Your task to perform on an android device: Show me productivity apps on the Play Store Image 0: 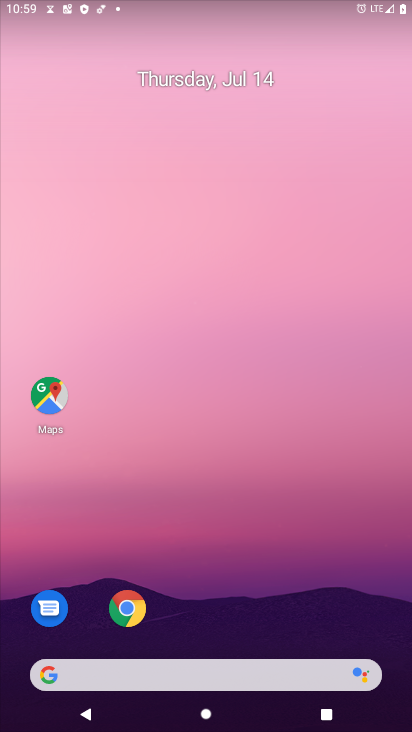
Step 0: drag from (229, 648) to (223, 160)
Your task to perform on an android device: Show me productivity apps on the Play Store Image 1: 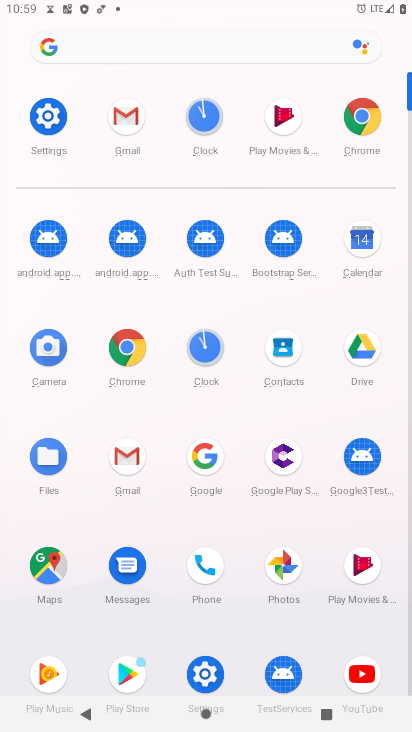
Step 1: click (133, 675)
Your task to perform on an android device: Show me productivity apps on the Play Store Image 2: 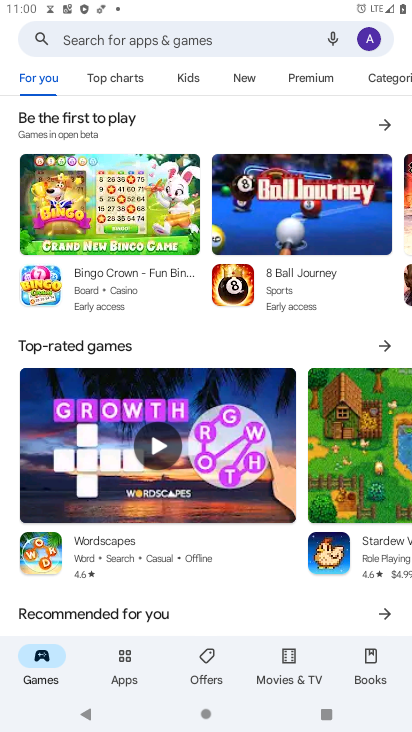
Step 2: click (125, 662)
Your task to perform on an android device: Show me productivity apps on the Play Store Image 3: 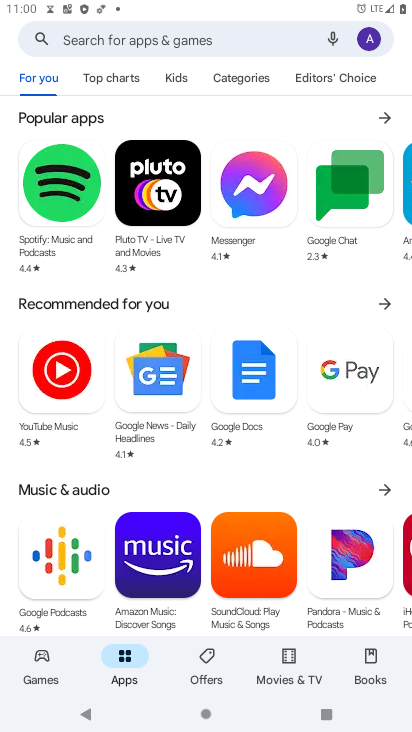
Step 3: click (237, 83)
Your task to perform on an android device: Show me productivity apps on the Play Store Image 4: 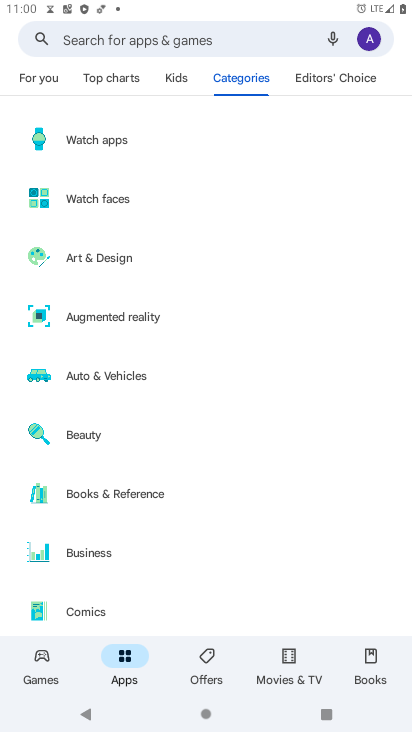
Step 4: drag from (101, 606) to (102, 309)
Your task to perform on an android device: Show me productivity apps on the Play Store Image 5: 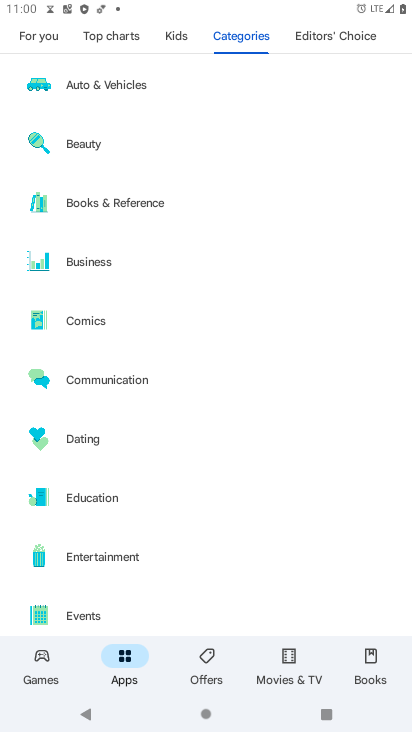
Step 5: drag from (127, 600) to (123, 381)
Your task to perform on an android device: Show me productivity apps on the Play Store Image 6: 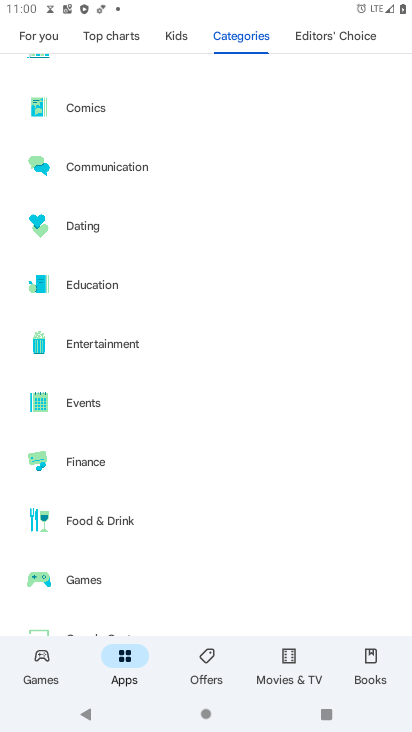
Step 6: drag from (113, 591) to (118, 404)
Your task to perform on an android device: Show me productivity apps on the Play Store Image 7: 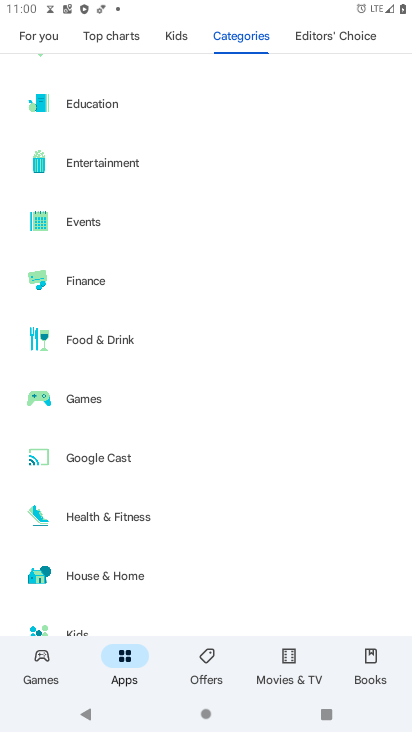
Step 7: drag from (168, 598) to (140, 317)
Your task to perform on an android device: Show me productivity apps on the Play Store Image 8: 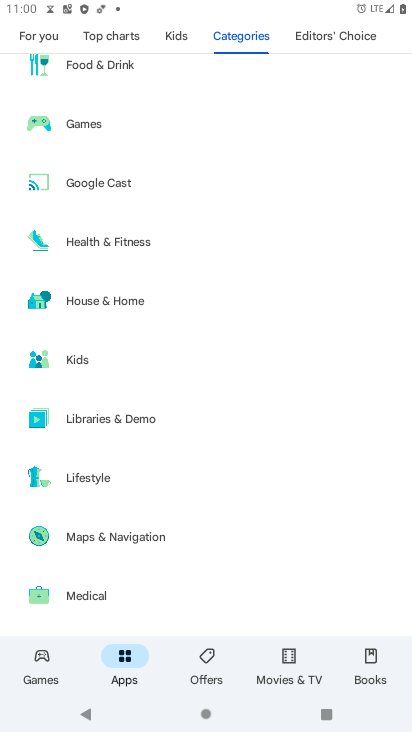
Step 8: drag from (153, 584) to (141, 430)
Your task to perform on an android device: Show me productivity apps on the Play Store Image 9: 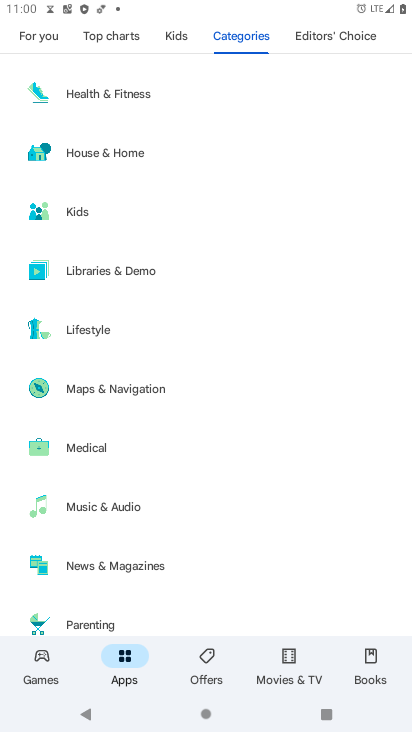
Step 9: drag from (168, 608) to (181, 260)
Your task to perform on an android device: Show me productivity apps on the Play Store Image 10: 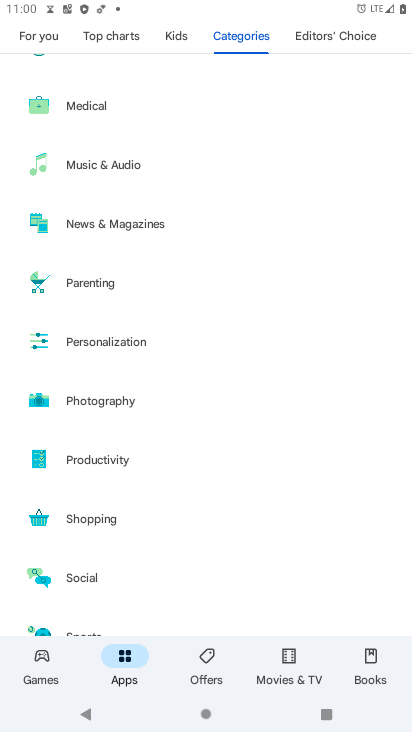
Step 10: drag from (163, 590) to (168, 371)
Your task to perform on an android device: Show me productivity apps on the Play Store Image 11: 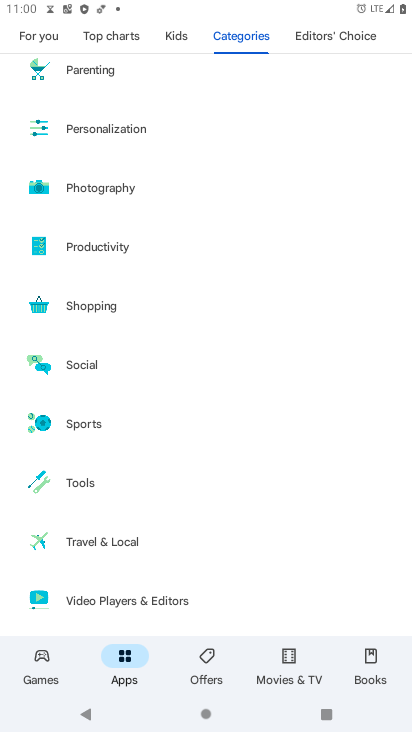
Step 11: drag from (175, 602) to (177, 417)
Your task to perform on an android device: Show me productivity apps on the Play Store Image 12: 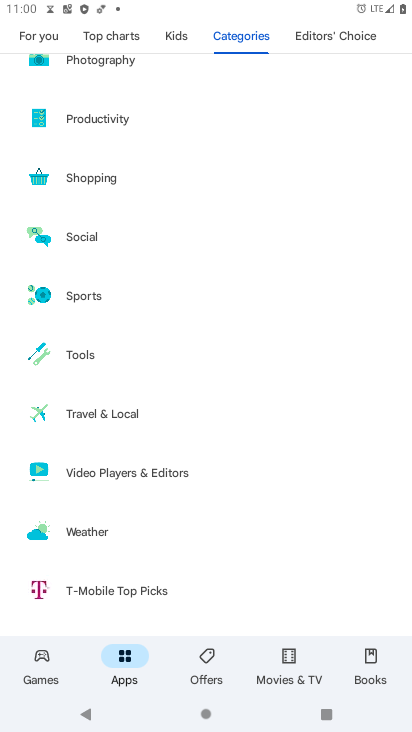
Step 12: click (102, 111)
Your task to perform on an android device: Show me productivity apps on the Play Store Image 13: 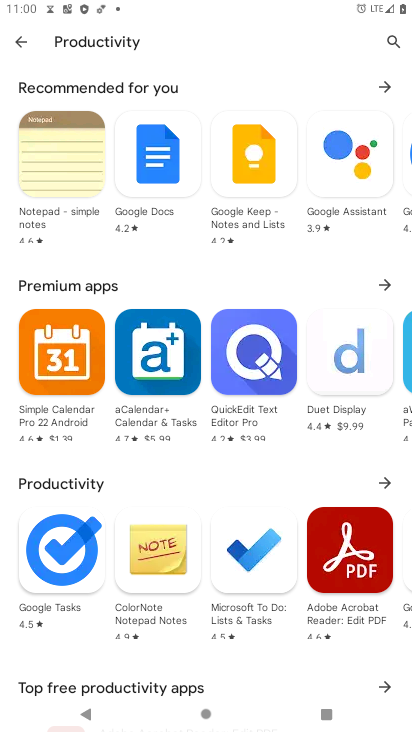
Step 13: task complete